Your task to perform on an android device: When is my next appointment? Image 0: 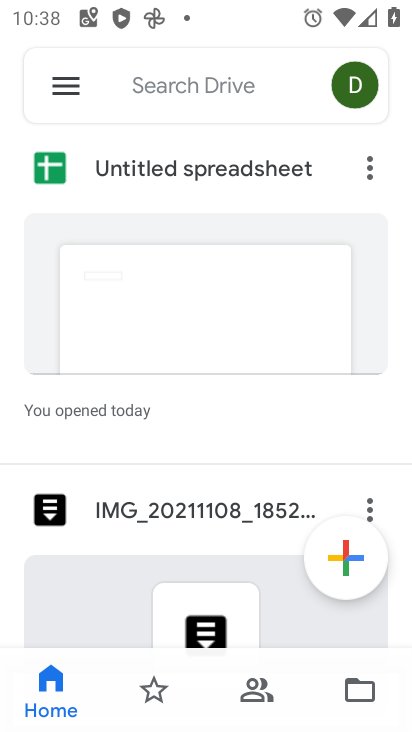
Step 0: press home button
Your task to perform on an android device: When is my next appointment? Image 1: 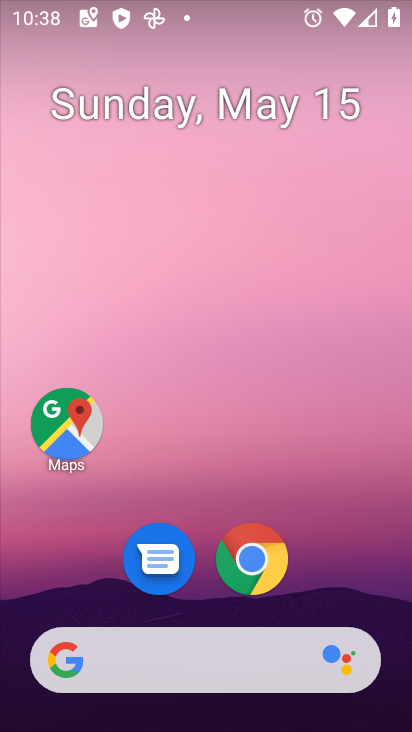
Step 1: drag from (386, 529) to (336, 229)
Your task to perform on an android device: When is my next appointment? Image 2: 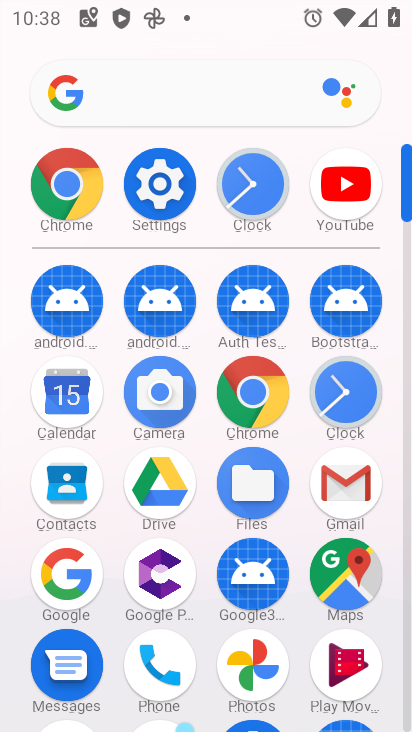
Step 2: click (148, 193)
Your task to perform on an android device: When is my next appointment? Image 3: 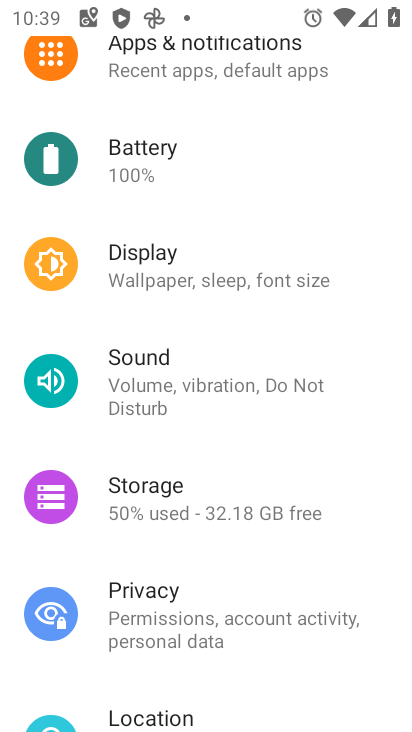
Step 3: press home button
Your task to perform on an android device: When is my next appointment? Image 4: 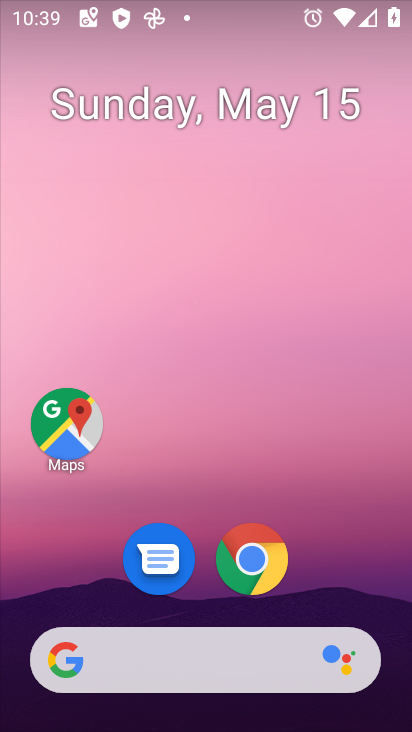
Step 4: drag from (360, 569) to (374, 259)
Your task to perform on an android device: When is my next appointment? Image 5: 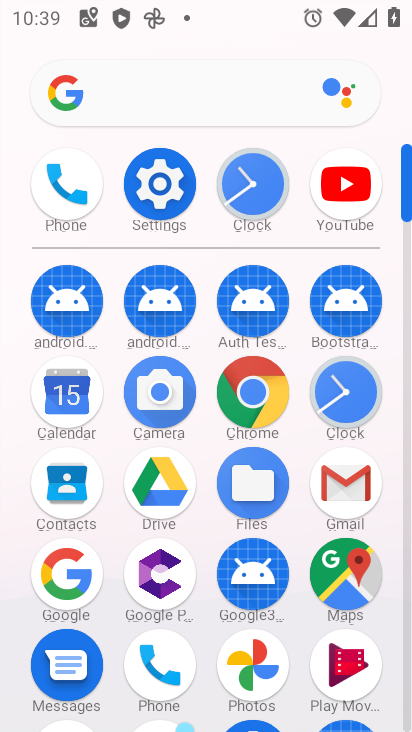
Step 5: click (83, 404)
Your task to perform on an android device: When is my next appointment? Image 6: 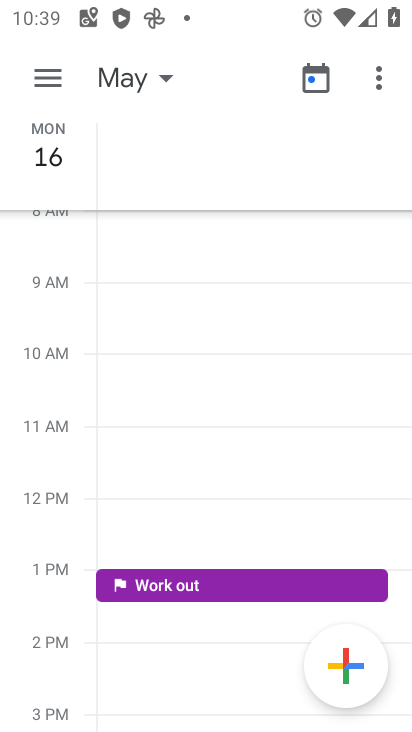
Step 6: click (130, 92)
Your task to perform on an android device: When is my next appointment? Image 7: 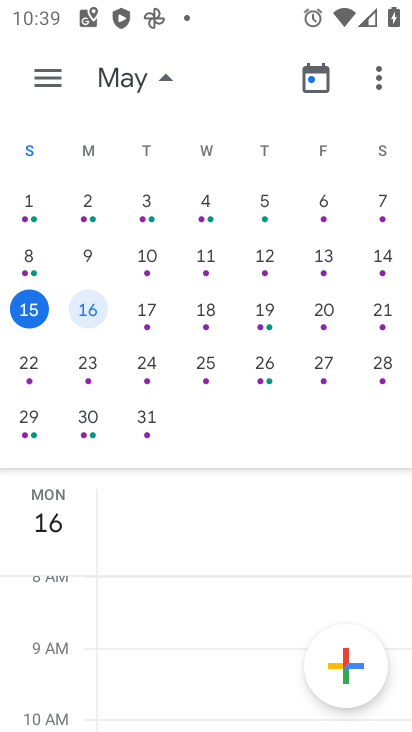
Step 7: click (46, 73)
Your task to perform on an android device: When is my next appointment? Image 8: 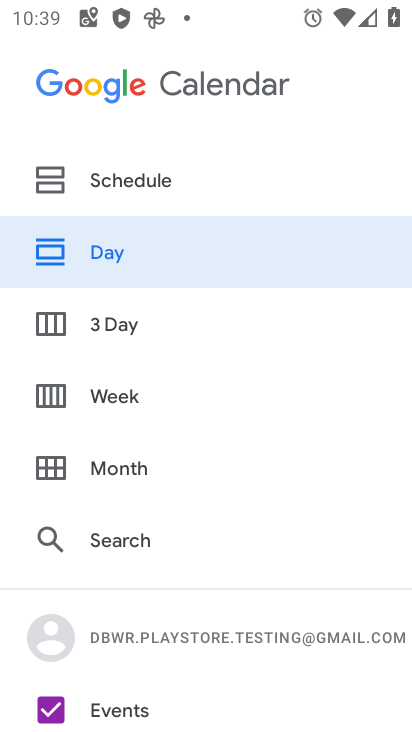
Step 8: click (112, 415)
Your task to perform on an android device: When is my next appointment? Image 9: 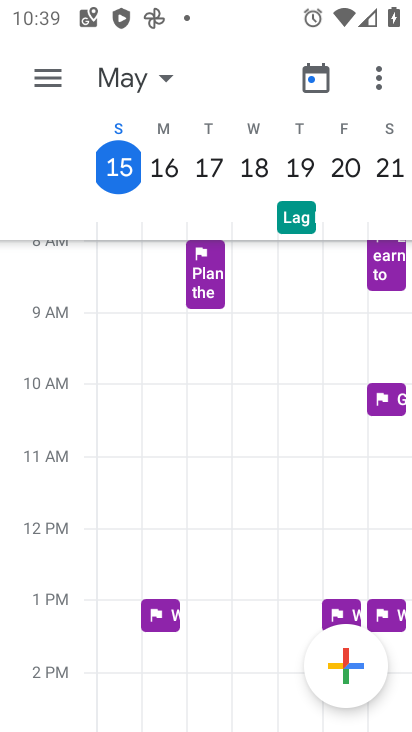
Step 9: task complete